Your task to perform on an android device: Open Chrome and go to settings Image 0: 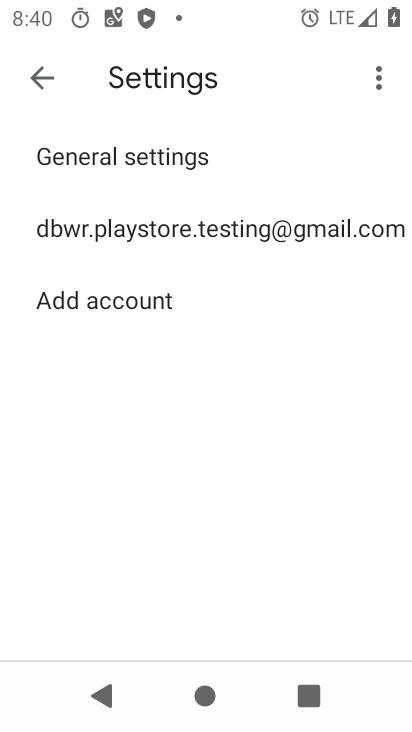
Step 0: press home button
Your task to perform on an android device: Open Chrome and go to settings Image 1: 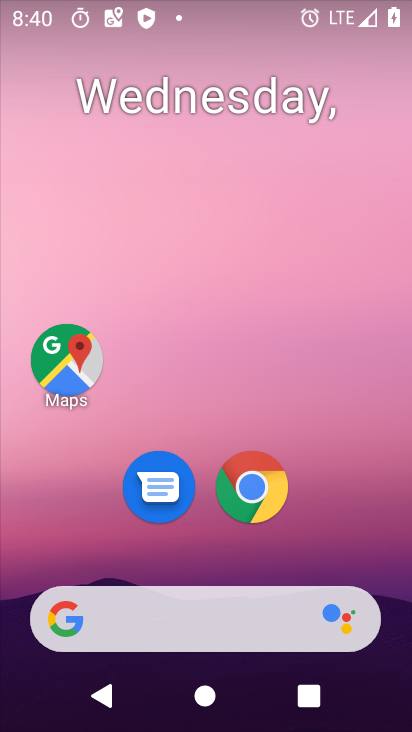
Step 1: click (262, 503)
Your task to perform on an android device: Open Chrome and go to settings Image 2: 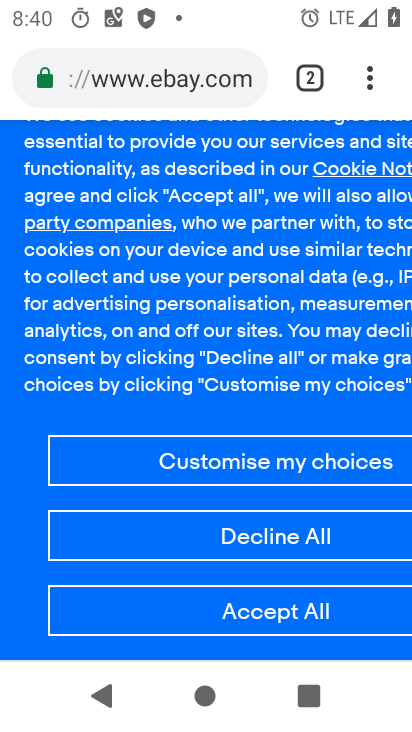
Step 2: click (367, 81)
Your task to perform on an android device: Open Chrome and go to settings Image 3: 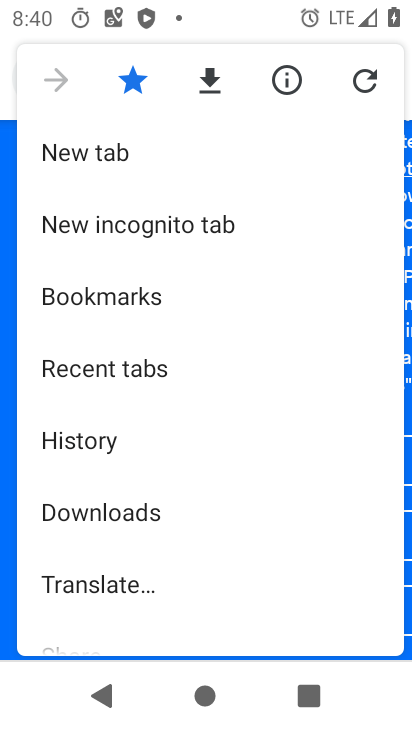
Step 3: drag from (279, 620) to (253, 250)
Your task to perform on an android device: Open Chrome and go to settings Image 4: 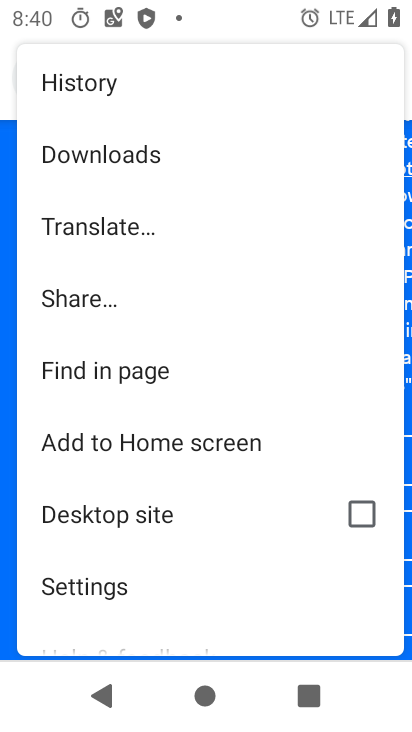
Step 4: click (83, 575)
Your task to perform on an android device: Open Chrome and go to settings Image 5: 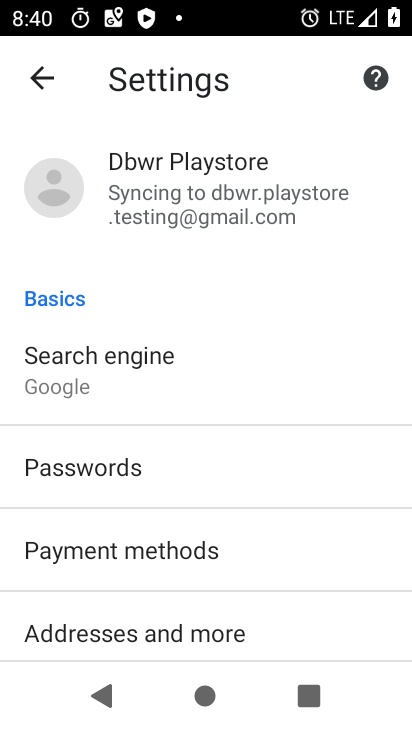
Step 5: task complete